Your task to perform on an android device: Open wifi settings Image 0: 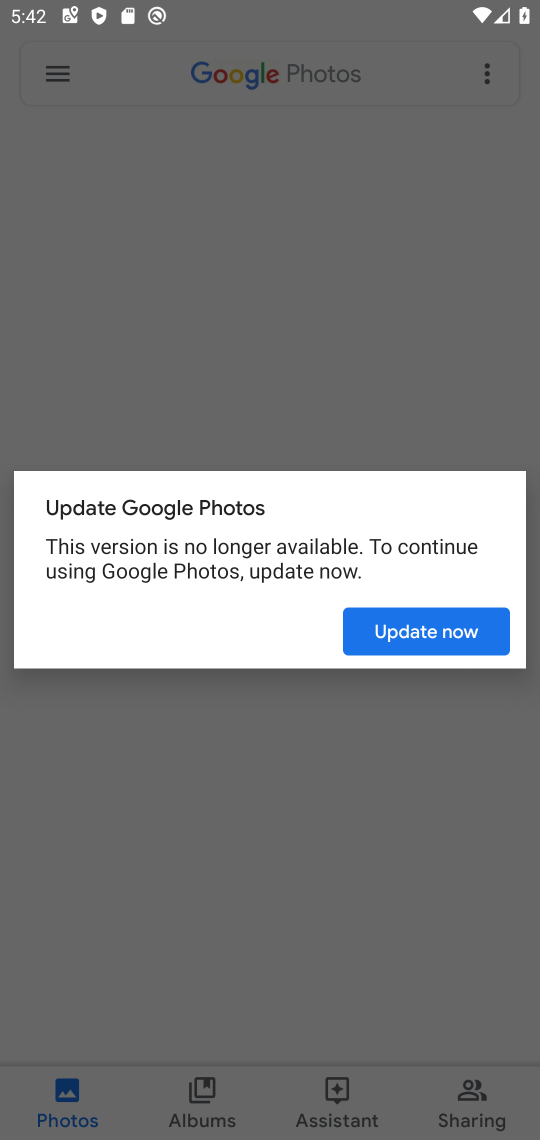
Step 0: press home button
Your task to perform on an android device: Open wifi settings Image 1: 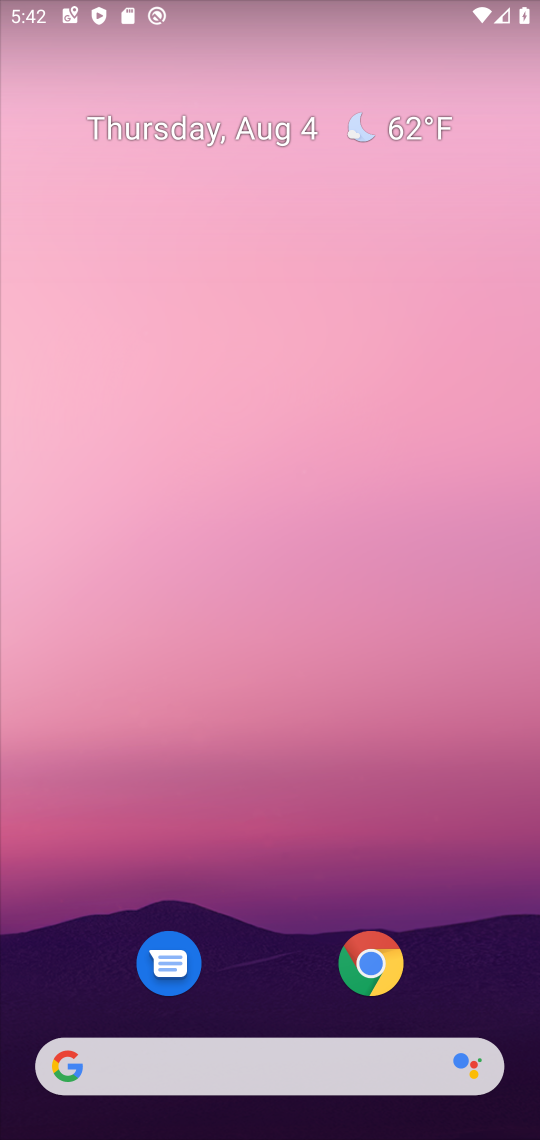
Step 1: drag from (269, 884) to (202, 92)
Your task to perform on an android device: Open wifi settings Image 2: 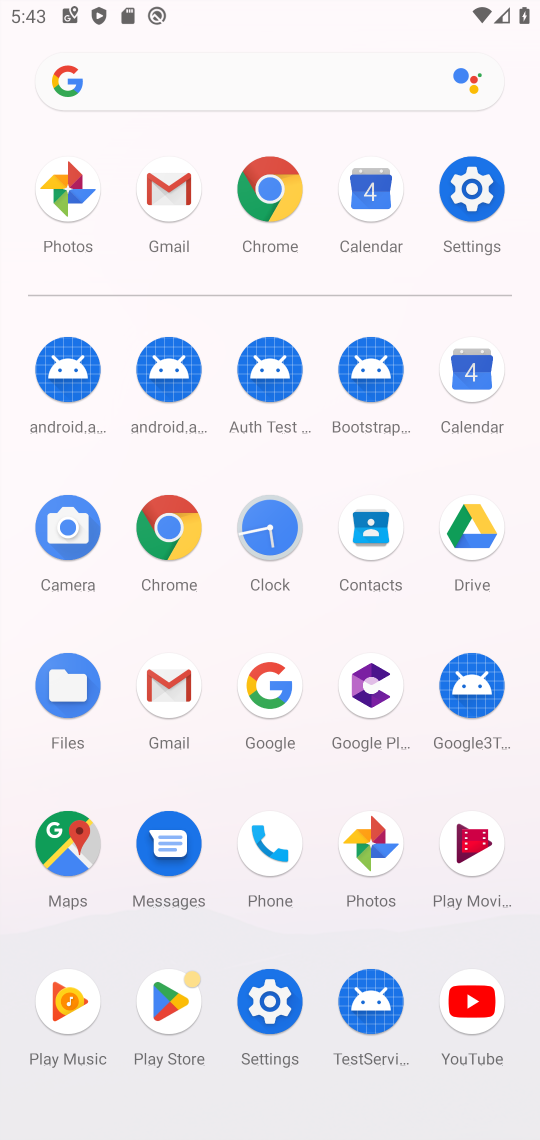
Step 2: click (470, 187)
Your task to perform on an android device: Open wifi settings Image 3: 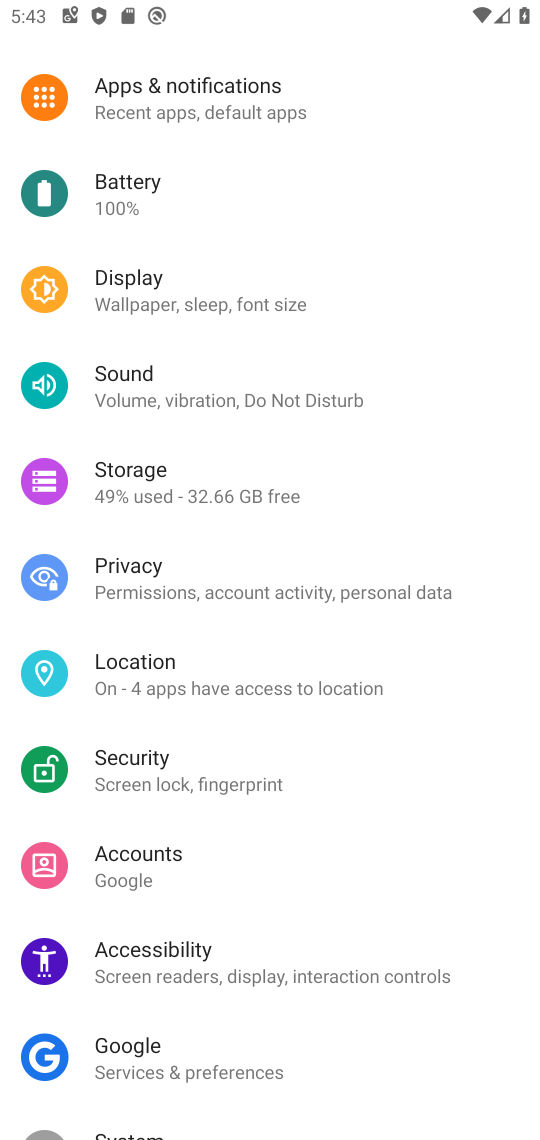
Step 3: drag from (295, 263) to (303, 761)
Your task to perform on an android device: Open wifi settings Image 4: 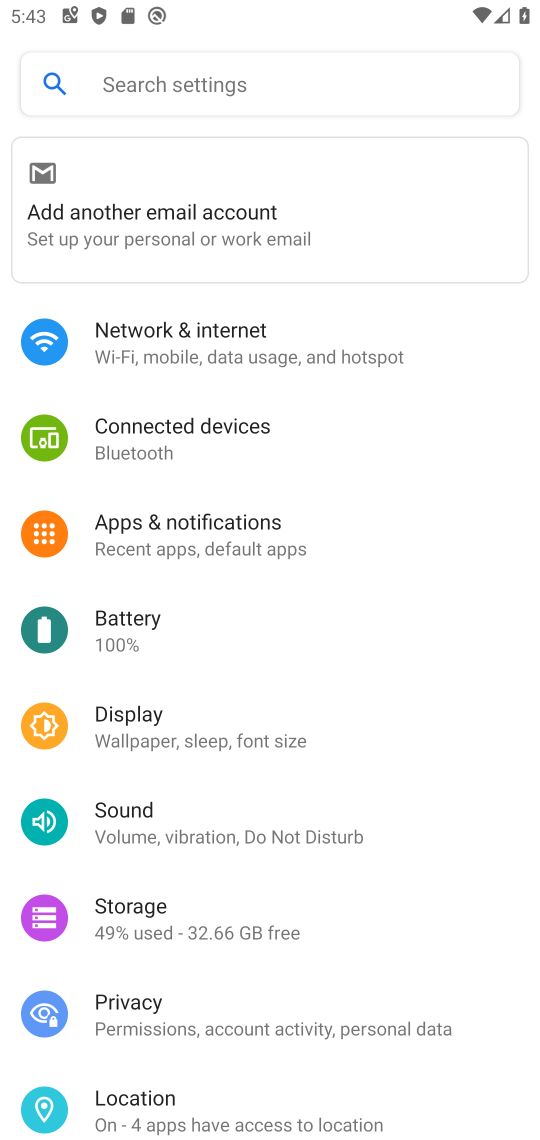
Step 4: click (174, 332)
Your task to perform on an android device: Open wifi settings Image 5: 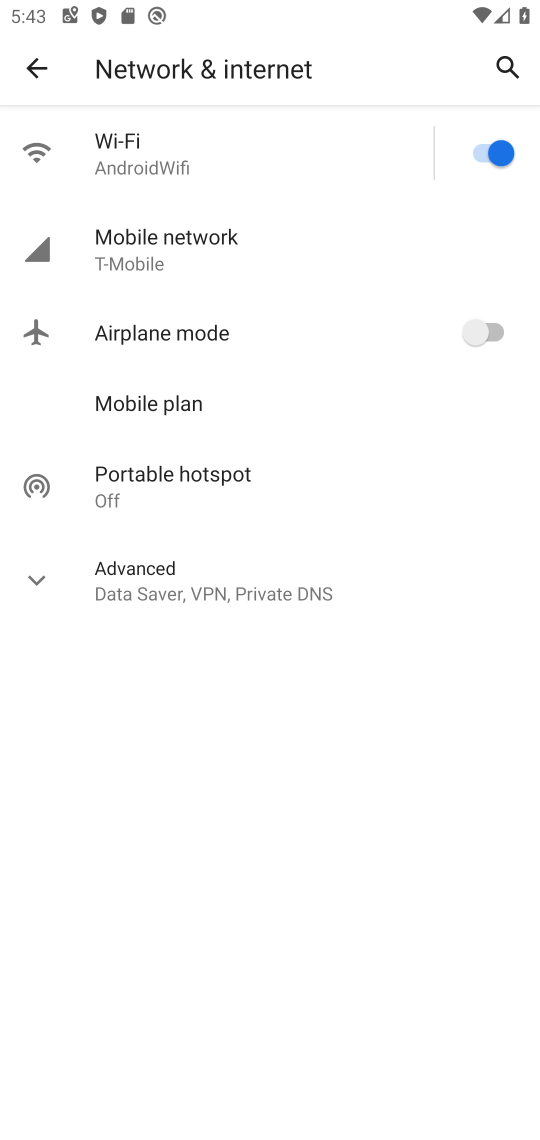
Step 5: click (136, 137)
Your task to perform on an android device: Open wifi settings Image 6: 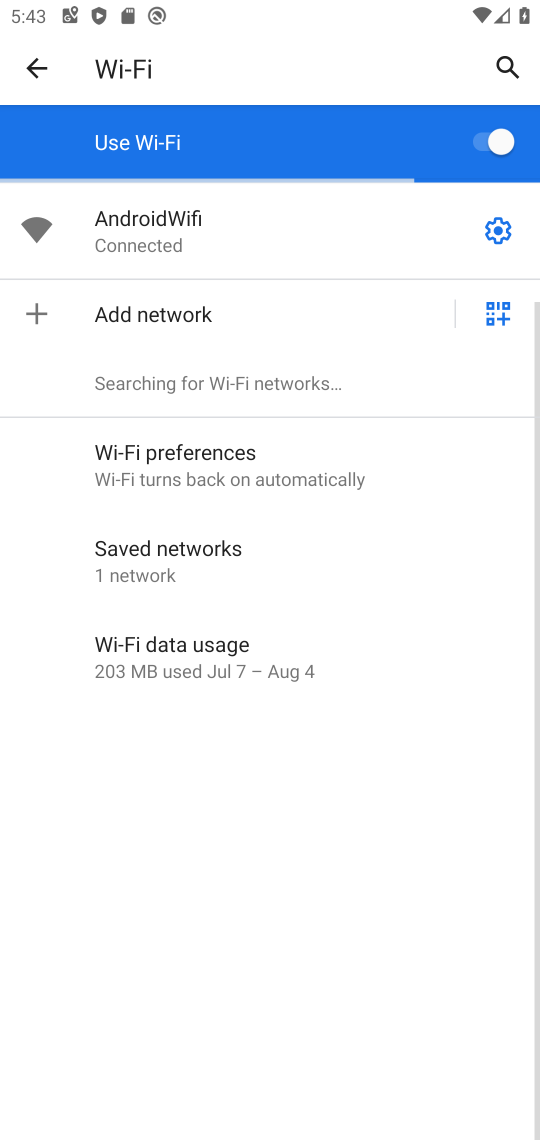
Step 6: task complete